Your task to perform on an android device: remove spam from my inbox in the gmail app Image 0: 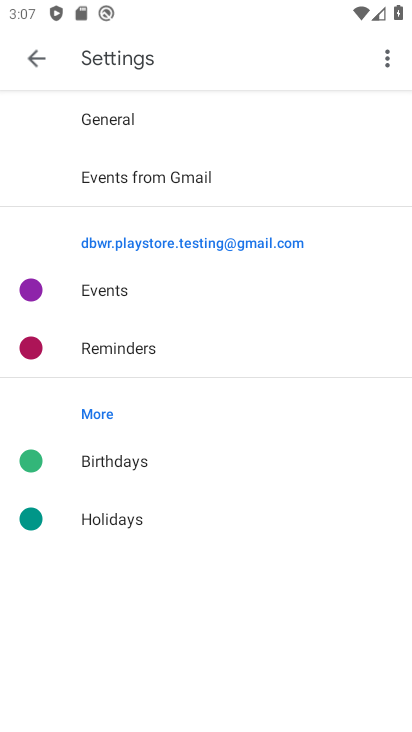
Step 0: press home button
Your task to perform on an android device: remove spam from my inbox in the gmail app Image 1: 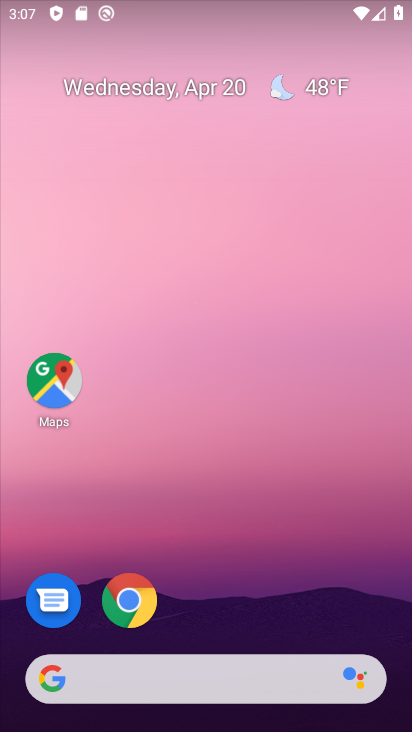
Step 1: drag from (272, 495) to (275, 112)
Your task to perform on an android device: remove spam from my inbox in the gmail app Image 2: 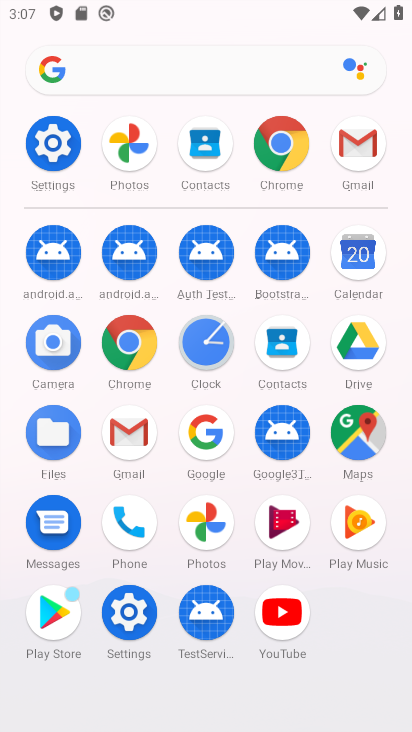
Step 2: click (352, 152)
Your task to perform on an android device: remove spam from my inbox in the gmail app Image 3: 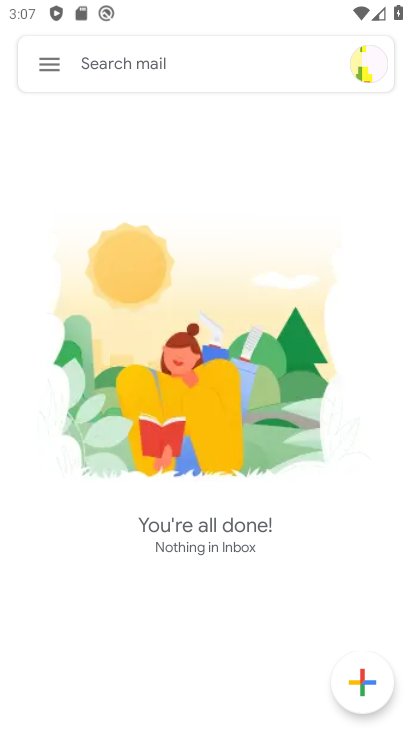
Step 3: click (37, 64)
Your task to perform on an android device: remove spam from my inbox in the gmail app Image 4: 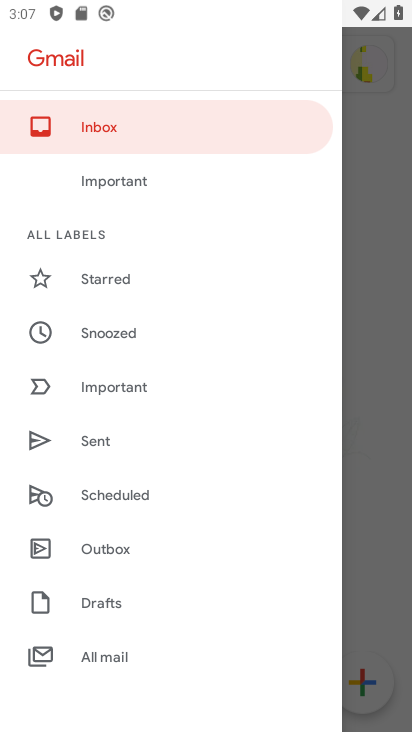
Step 4: drag from (198, 592) to (305, 125)
Your task to perform on an android device: remove spam from my inbox in the gmail app Image 5: 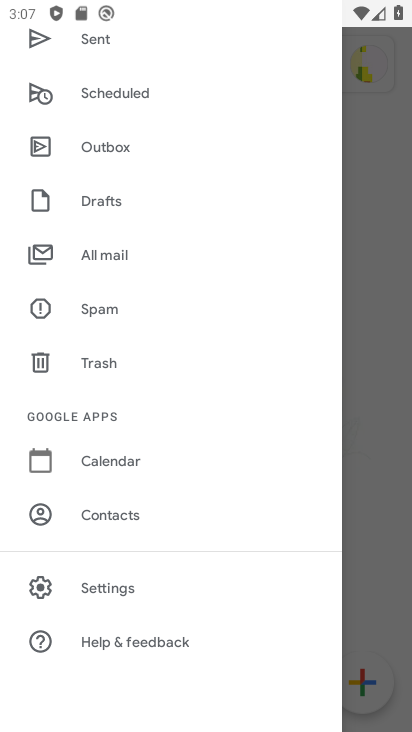
Step 5: click (116, 307)
Your task to perform on an android device: remove spam from my inbox in the gmail app Image 6: 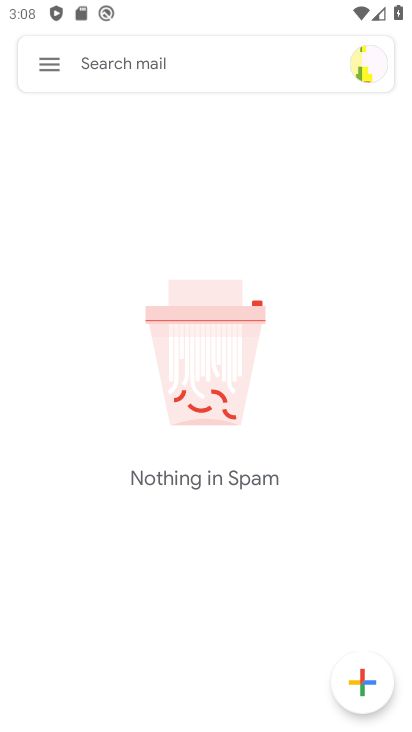
Step 6: task complete